Your task to perform on an android device: open a bookmark in the chrome app Image 0: 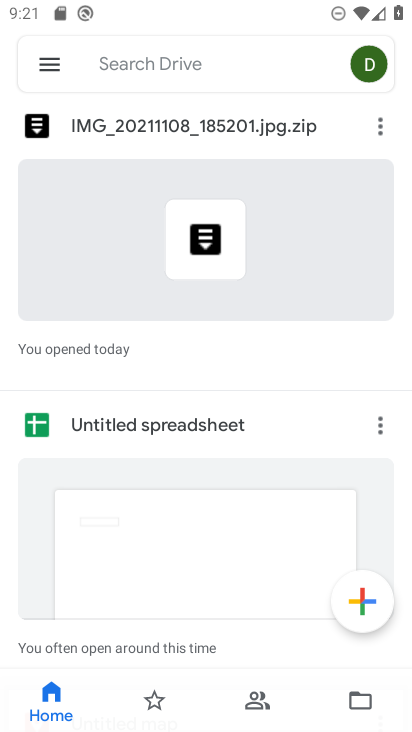
Step 0: press home button
Your task to perform on an android device: open a bookmark in the chrome app Image 1: 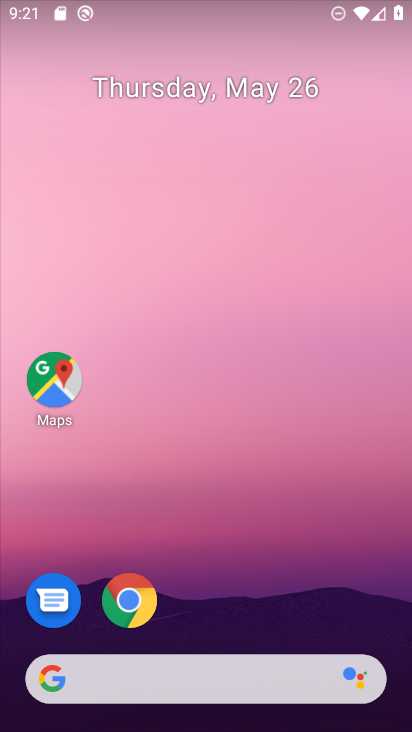
Step 1: click (119, 593)
Your task to perform on an android device: open a bookmark in the chrome app Image 2: 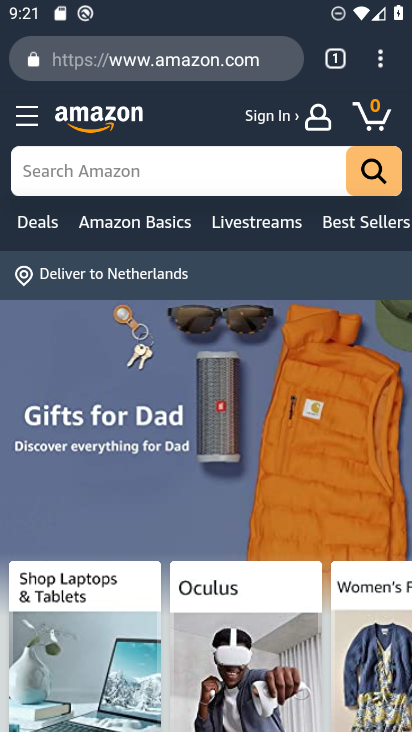
Step 2: click (381, 49)
Your task to perform on an android device: open a bookmark in the chrome app Image 3: 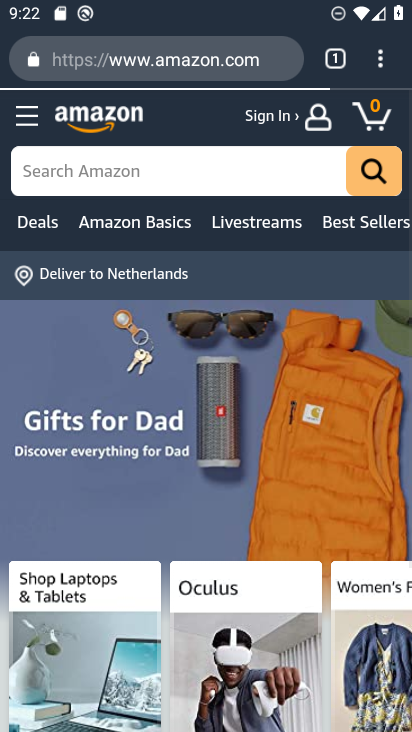
Step 3: click (382, 61)
Your task to perform on an android device: open a bookmark in the chrome app Image 4: 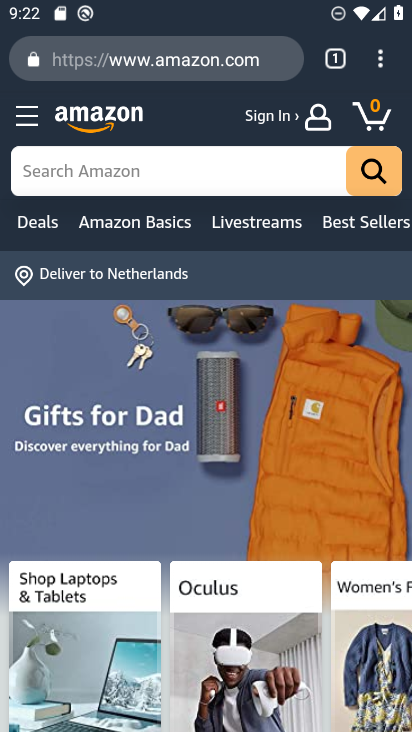
Step 4: click (382, 61)
Your task to perform on an android device: open a bookmark in the chrome app Image 5: 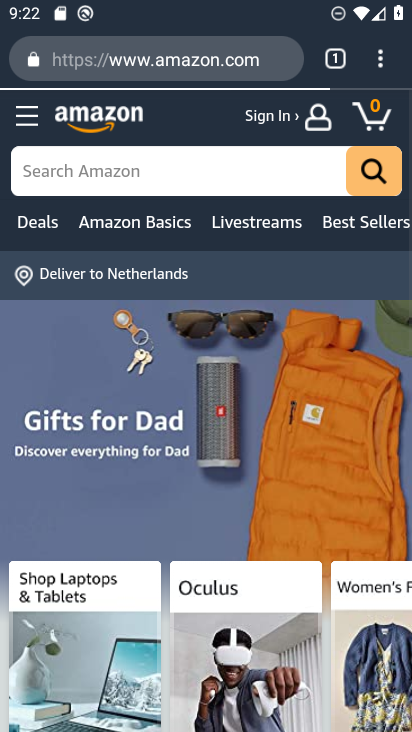
Step 5: click (378, 68)
Your task to perform on an android device: open a bookmark in the chrome app Image 6: 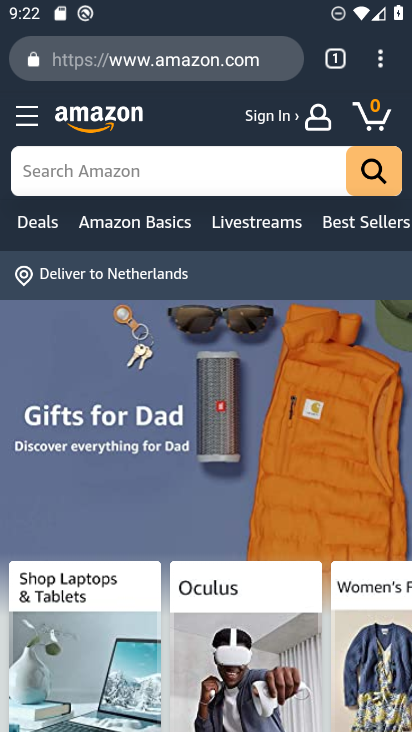
Step 6: click (378, 68)
Your task to perform on an android device: open a bookmark in the chrome app Image 7: 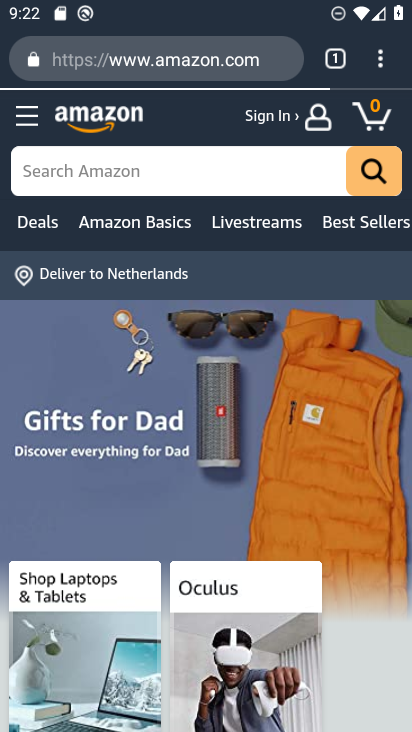
Step 7: click (365, 49)
Your task to perform on an android device: open a bookmark in the chrome app Image 8: 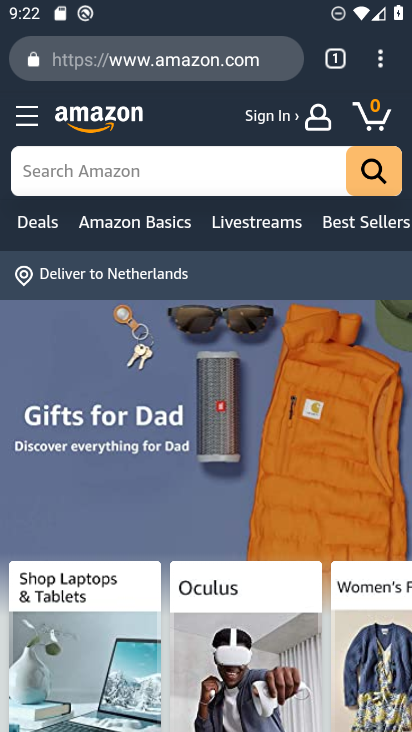
Step 8: click (365, 50)
Your task to perform on an android device: open a bookmark in the chrome app Image 9: 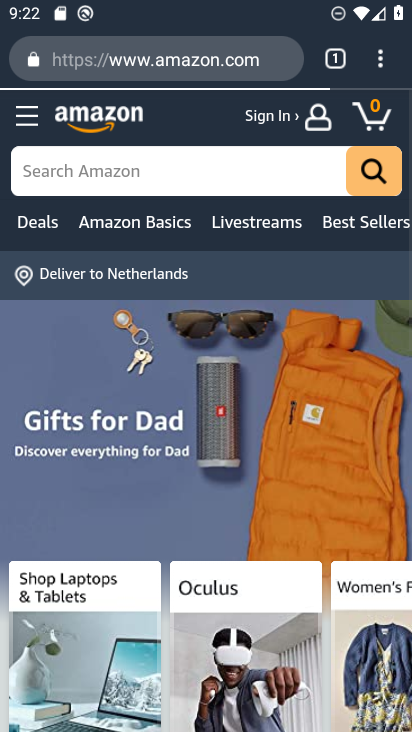
Step 9: click (338, 62)
Your task to perform on an android device: open a bookmark in the chrome app Image 10: 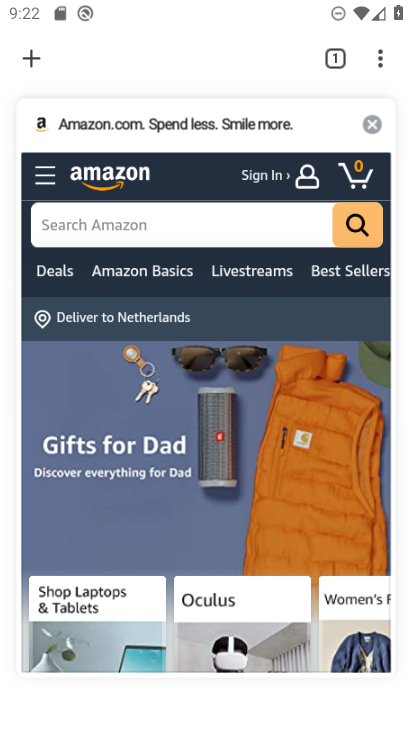
Step 10: click (375, 116)
Your task to perform on an android device: open a bookmark in the chrome app Image 11: 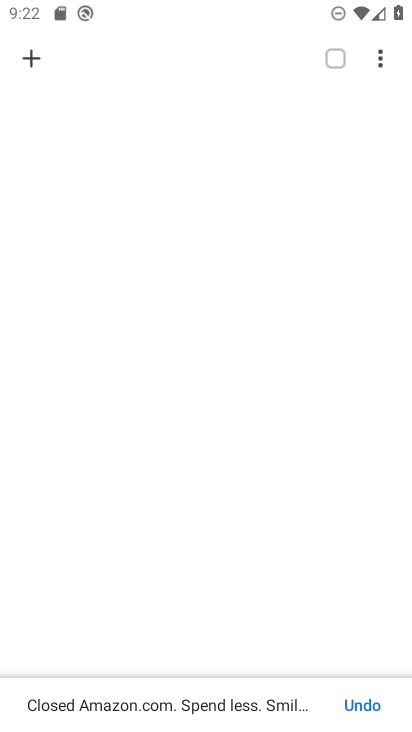
Step 11: click (24, 58)
Your task to perform on an android device: open a bookmark in the chrome app Image 12: 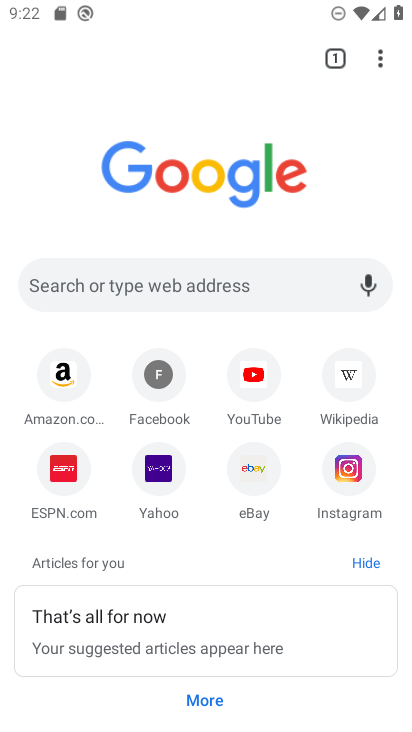
Step 12: click (376, 54)
Your task to perform on an android device: open a bookmark in the chrome app Image 13: 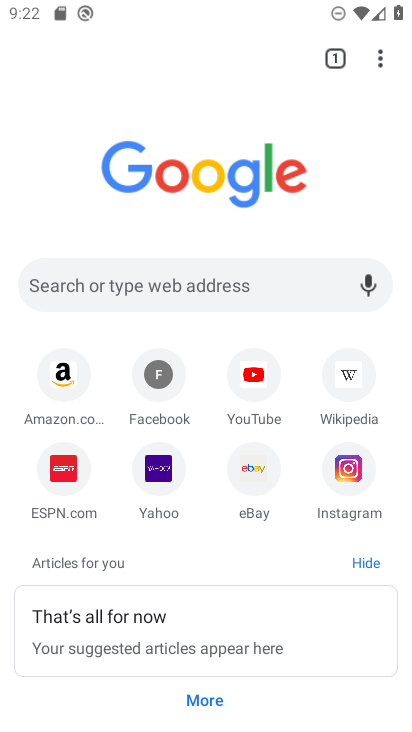
Step 13: click (381, 57)
Your task to perform on an android device: open a bookmark in the chrome app Image 14: 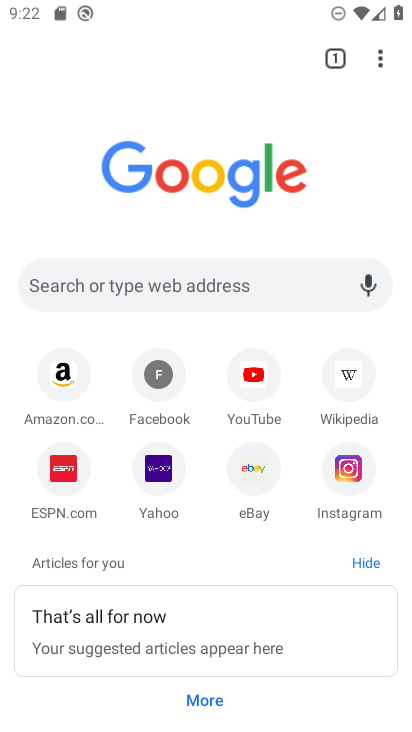
Step 14: click (391, 57)
Your task to perform on an android device: open a bookmark in the chrome app Image 15: 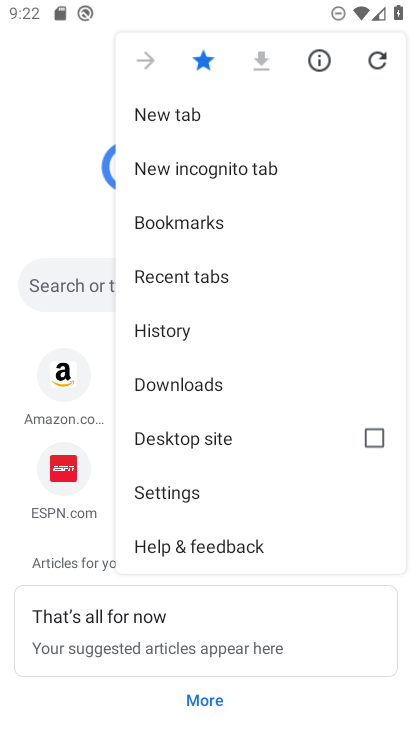
Step 15: click (142, 221)
Your task to perform on an android device: open a bookmark in the chrome app Image 16: 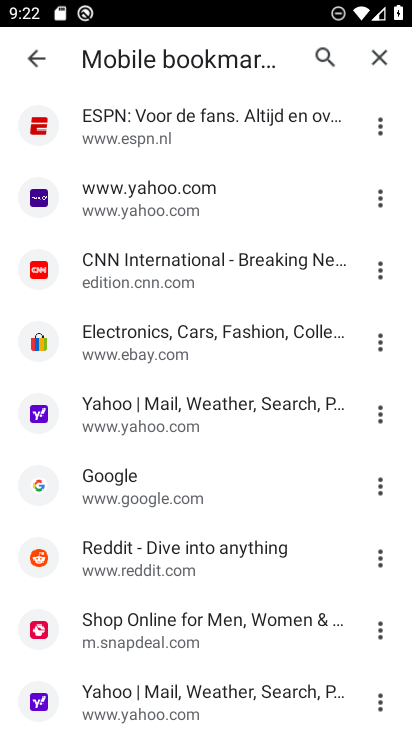
Step 16: task complete